Your task to perform on an android device: add a contact Image 0: 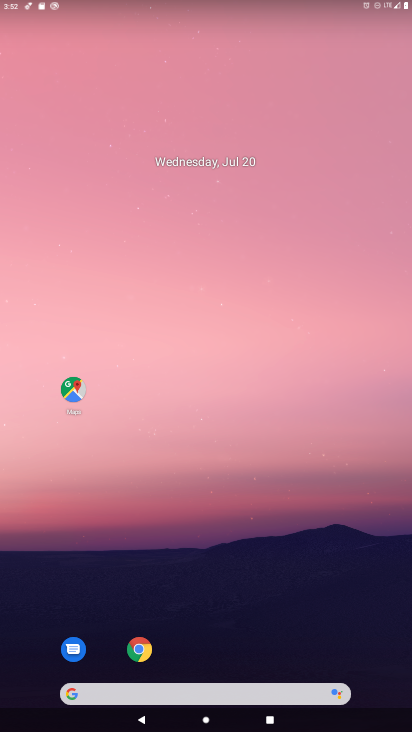
Step 0: drag from (203, 692) to (293, 86)
Your task to perform on an android device: add a contact Image 1: 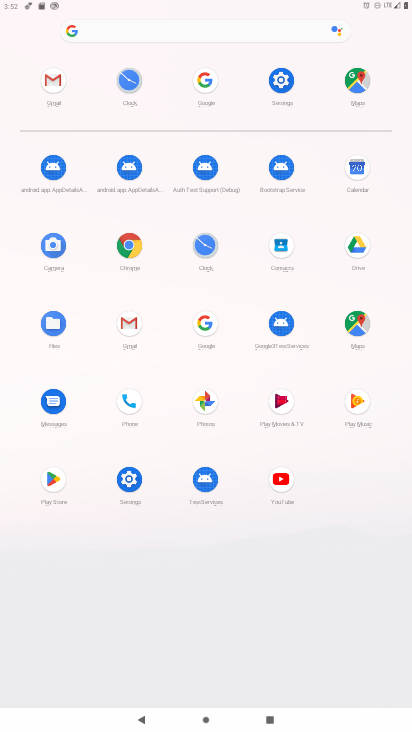
Step 1: click (281, 245)
Your task to perform on an android device: add a contact Image 2: 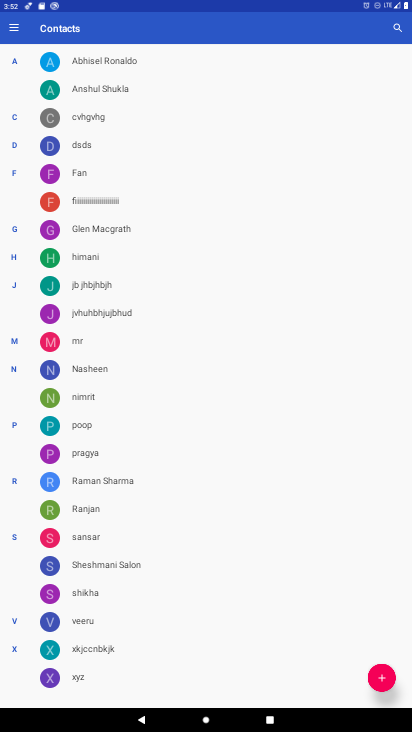
Step 2: click (383, 680)
Your task to perform on an android device: add a contact Image 3: 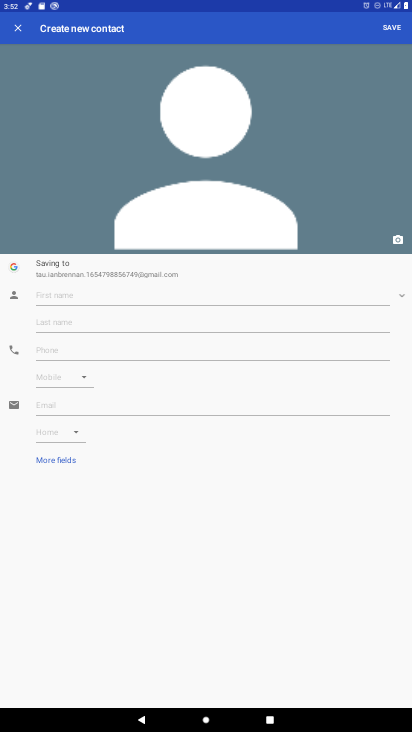
Step 3: click (321, 284)
Your task to perform on an android device: add a contact Image 4: 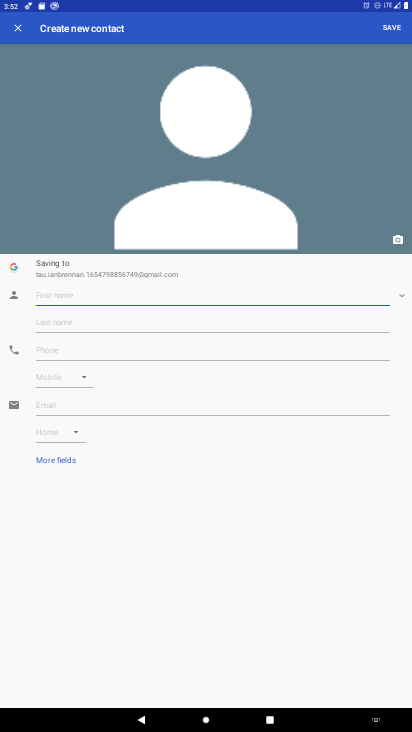
Step 4: type "Shakifa"
Your task to perform on an android device: add a contact Image 5: 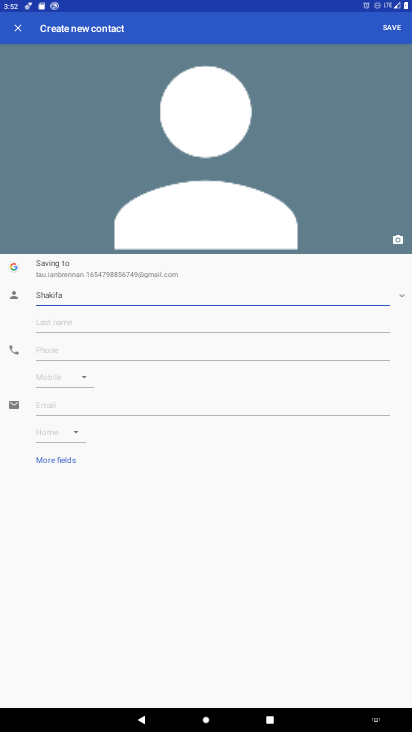
Step 5: click (224, 318)
Your task to perform on an android device: add a contact Image 6: 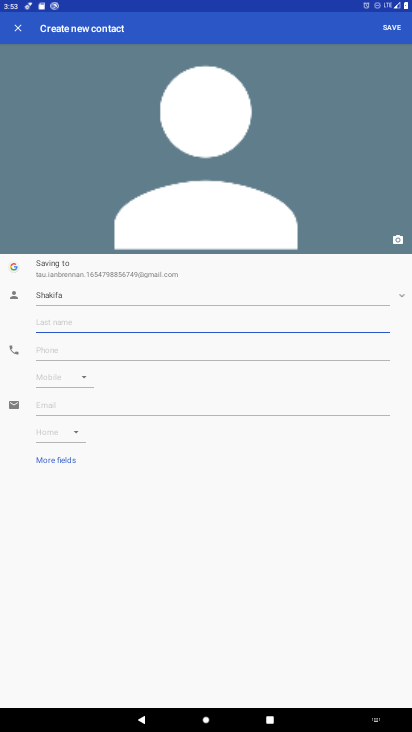
Step 6: type "Khatoon"
Your task to perform on an android device: add a contact Image 7: 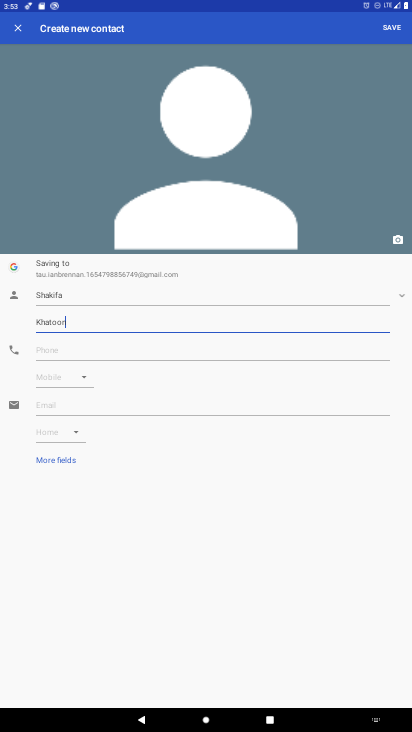
Step 7: click (268, 350)
Your task to perform on an android device: add a contact Image 8: 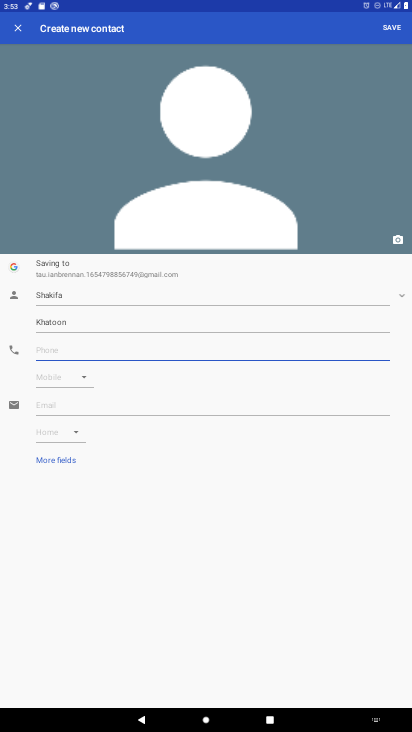
Step 8: click (268, 350)
Your task to perform on an android device: add a contact Image 9: 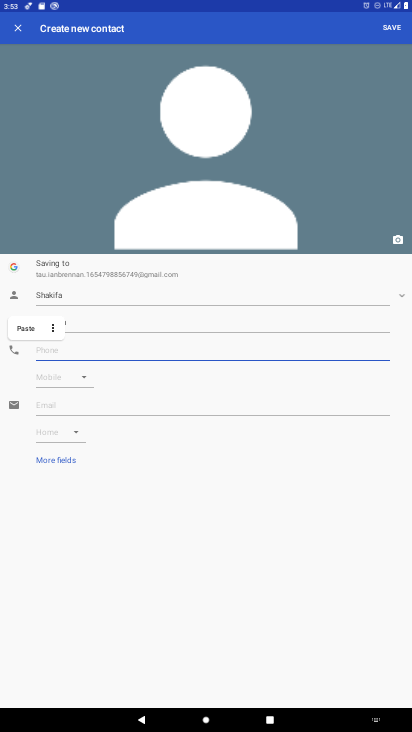
Step 9: type "0998823462374"
Your task to perform on an android device: add a contact Image 10: 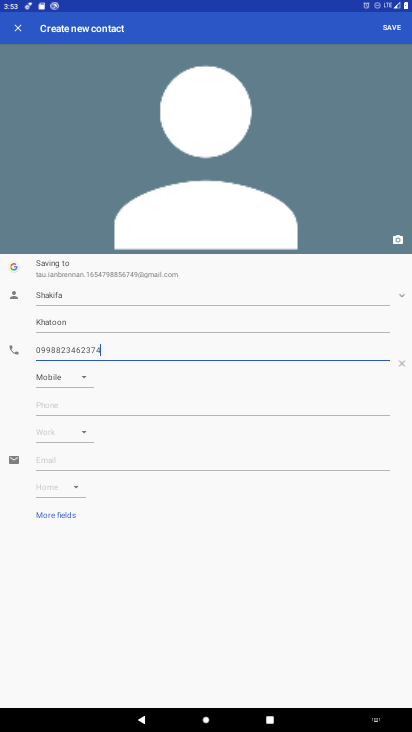
Step 10: click (401, 30)
Your task to perform on an android device: add a contact Image 11: 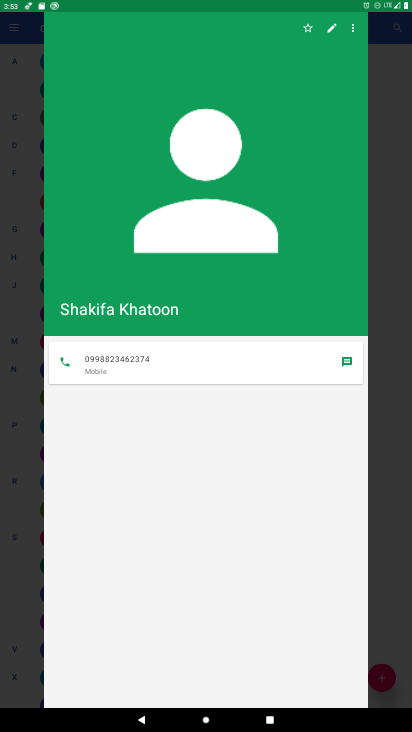
Step 11: task complete